Your task to perform on an android device: Turn on the flashlight Image 0: 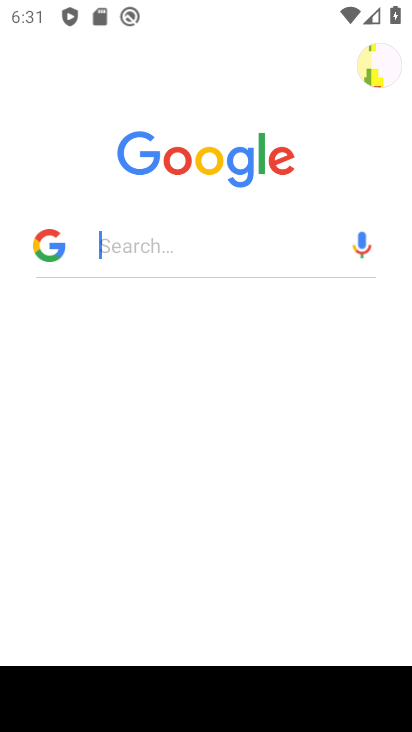
Step 0: press home button
Your task to perform on an android device: Turn on the flashlight Image 1: 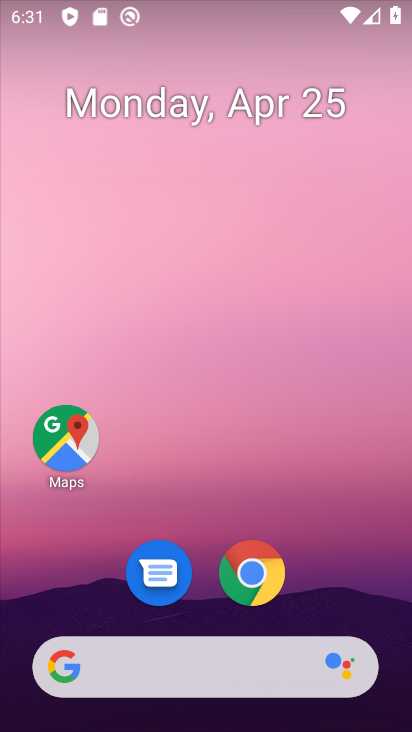
Step 1: task complete